Your task to perform on an android device: Go to Google Image 0: 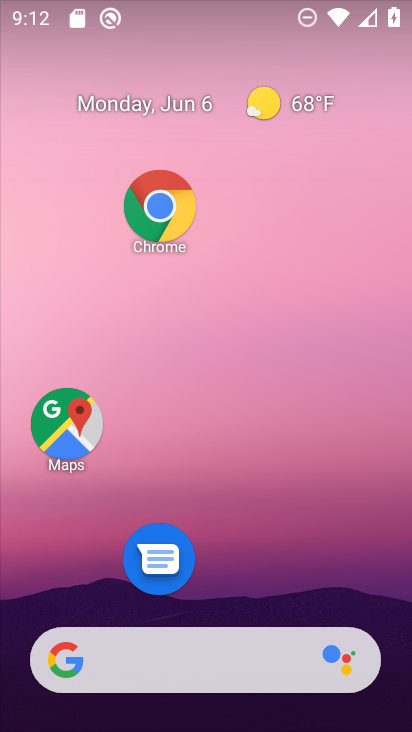
Step 0: drag from (293, 709) to (220, 266)
Your task to perform on an android device: Go to Google Image 1: 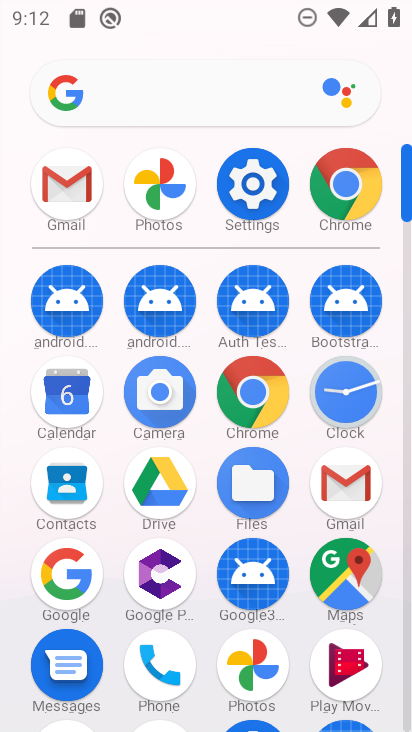
Step 1: click (64, 587)
Your task to perform on an android device: Go to Google Image 2: 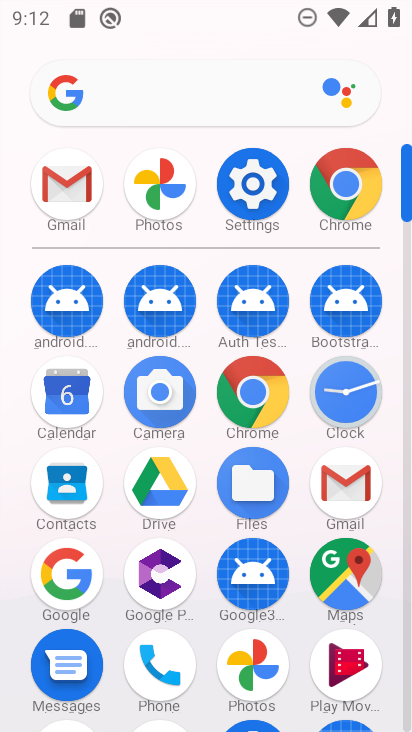
Step 2: click (64, 587)
Your task to perform on an android device: Go to Google Image 3: 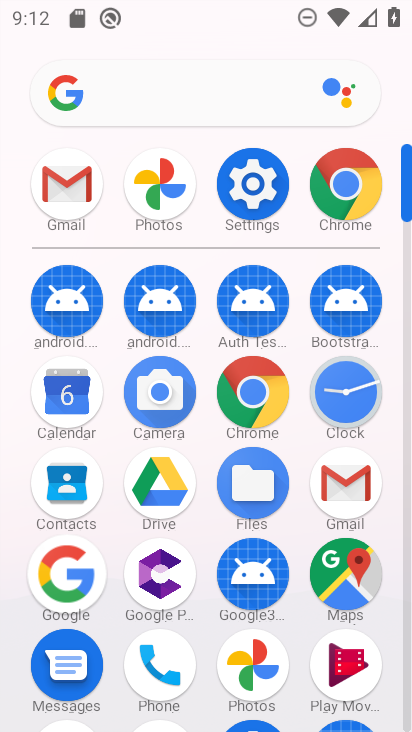
Step 3: click (64, 587)
Your task to perform on an android device: Go to Google Image 4: 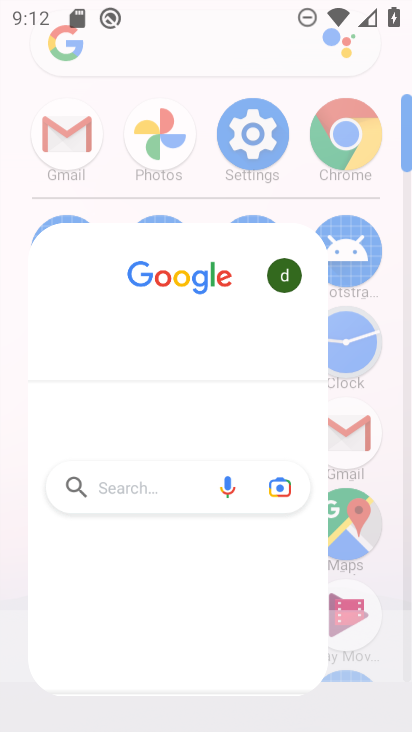
Step 4: click (64, 587)
Your task to perform on an android device: Go to Google Image 5: 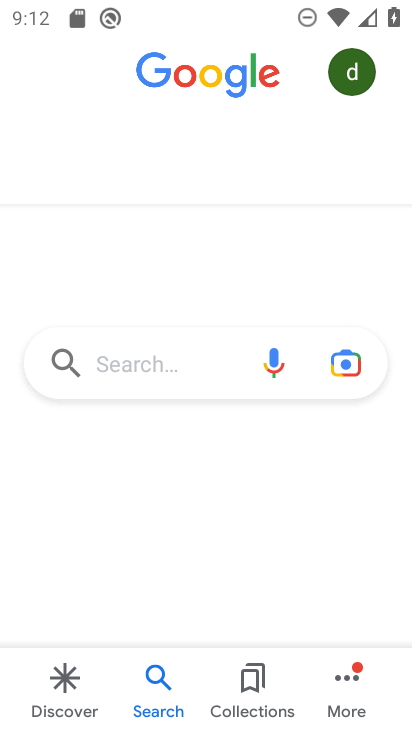
Step 5: click (58, 582)
Your task to perform on an android device: Go to Google Image 6: 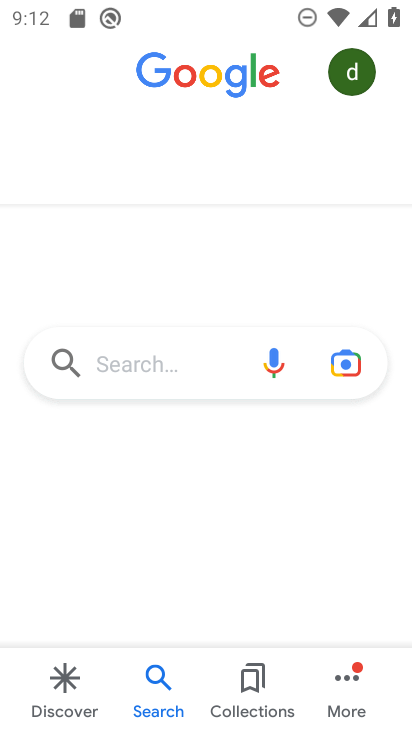
Step 6: task complete